Your task to perform on an android device: What is the news today? Image 0: 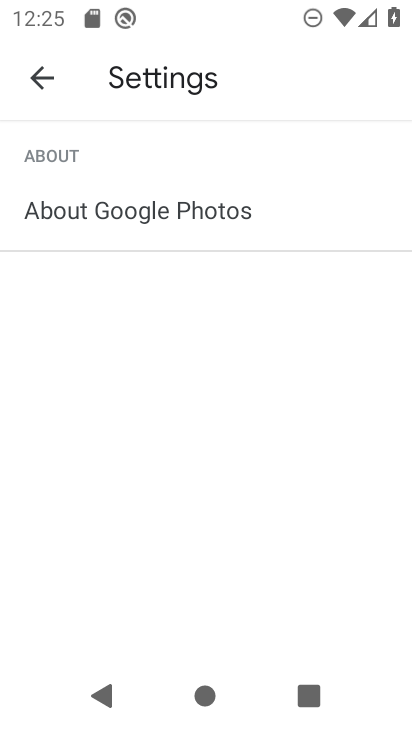
Step 0: press home button
Your task to perform on an android device: What is the news today? Image 1: 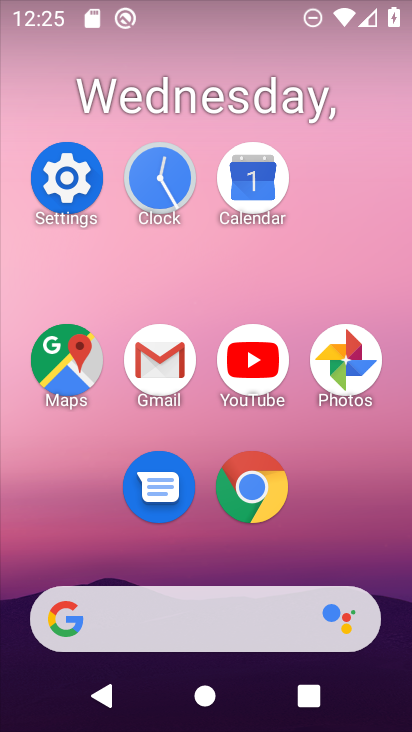
Step 1: drag from (335, 508) to (313, 108)
Your task to perform on an android device: What is the news today? Image 2: 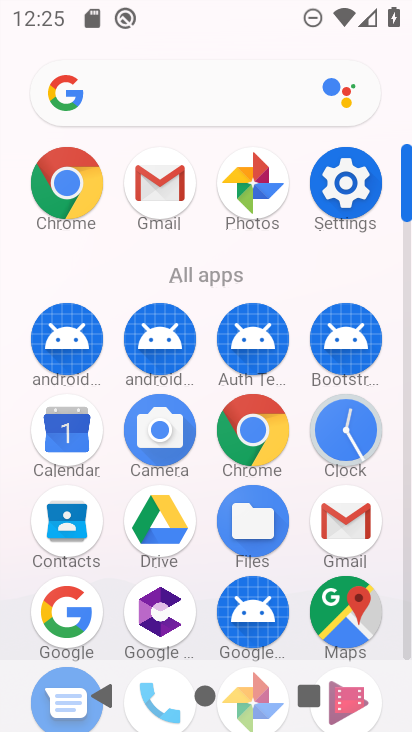
Step 2: drag from (75, 603) to (85, 265)
Your task to perform on an android device: What is the news today? Image 3: 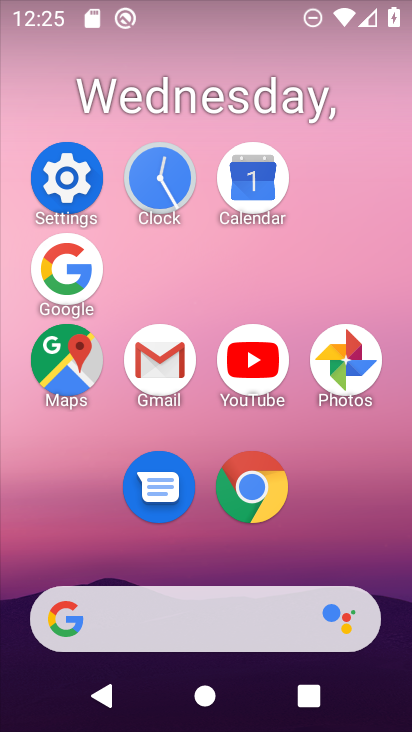
Step 3: click (74, 271)
Your task to perform on an android device: What is the news today? Image 4: 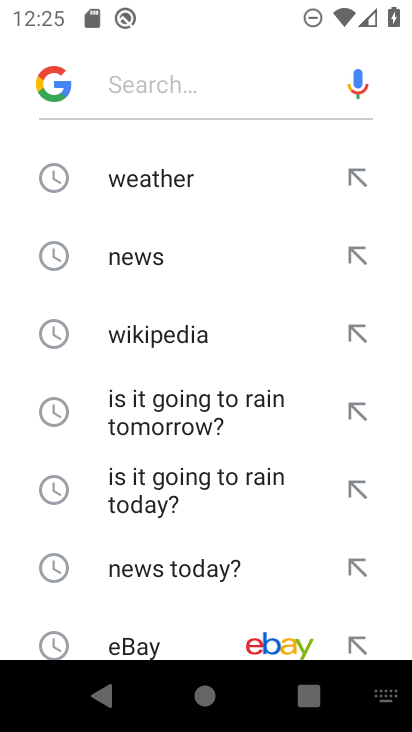
Step 4: click (201, 263)
Your task to perform on an android device: What is the news today? Image 5: 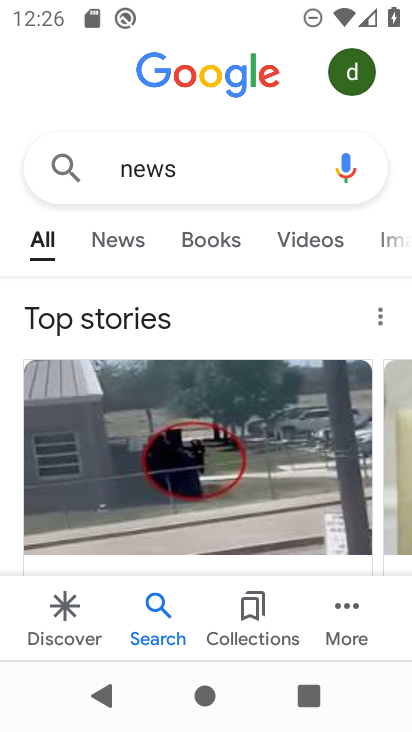
Step 5: task complete